Your task to perform on an android device: Open Google Image 0: 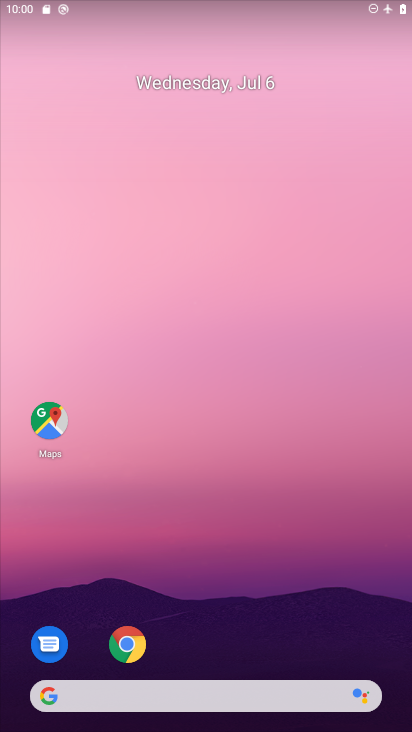
Step 0: drag from (206, 425) to (216, 131)
Your task to perform on an android device: Open Google Image 1: 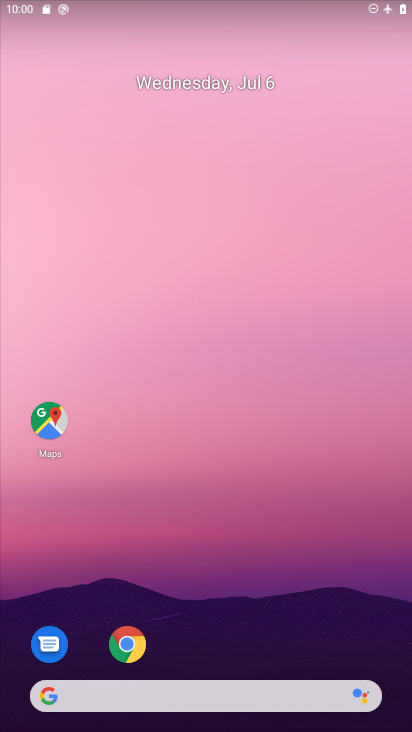
Step 1: drag from (197, 647) to (193, 103)
Your task to perform on an android device: Open Google Image 2: 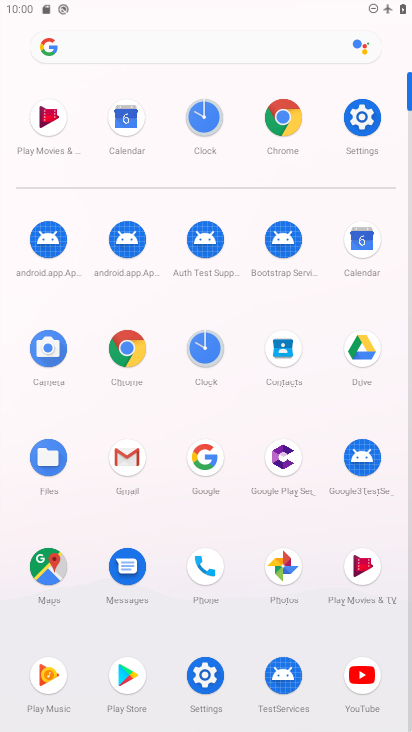
Step 2: click (201, 446)
Your task to perform on an android device: Open Google Image 3: 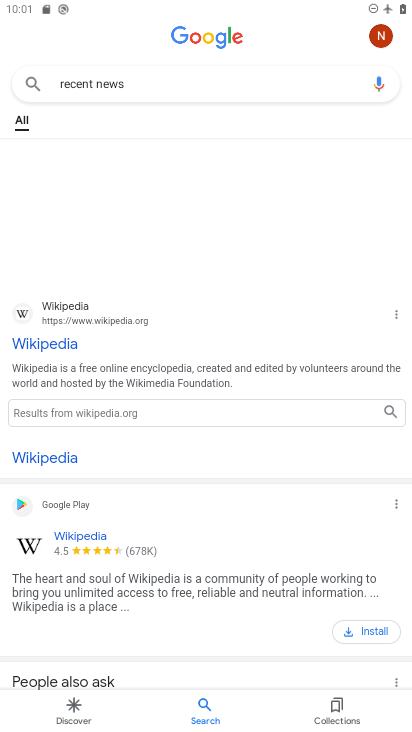
Step 3: task complete